Your task to perform on an android device: change text size in settings app Image 0: 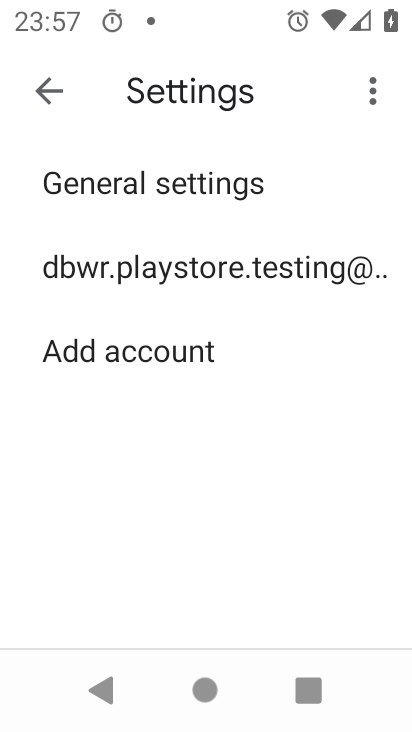
Step 0: press home button
Your task to perform on an android device: change text size in settings app Image 1: 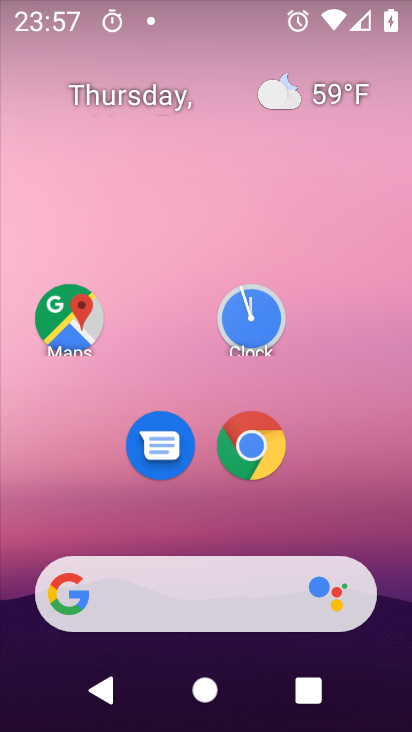
Step 1: drag from (171, 536) to (173, 65)
Your task to perform on an android device: change text size in settings app Image 2: 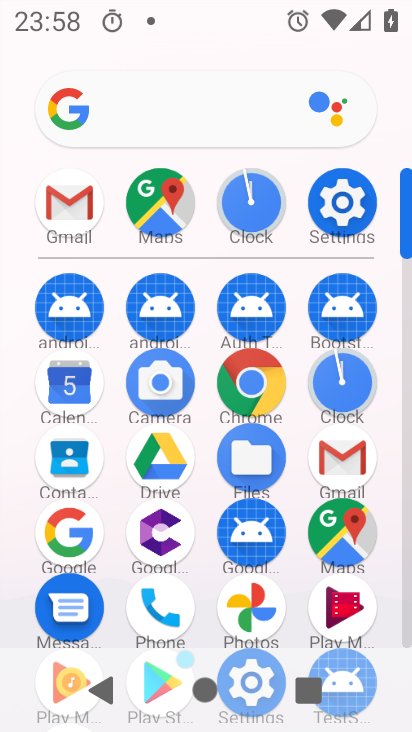
Step 2: click (353, 209)
Your task to perform on an android device: change text size in settings app Image 3: 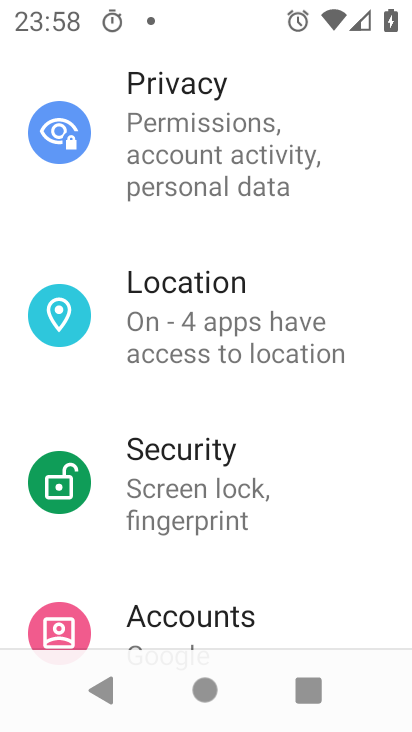
Step 3: drag from (206, 142) to (234, 564)
Your task to perform on an android device: change text size in settings app Image 4: 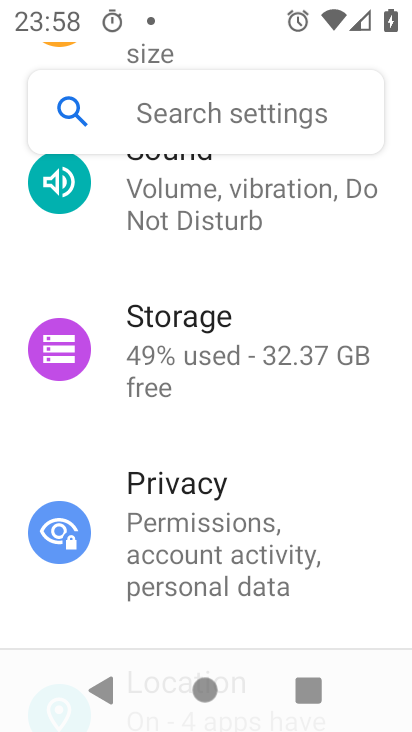
Step 4: drag from (166, 209) to (233, 580)
Your task to perform on an android device: change text size in settings app Image 5: 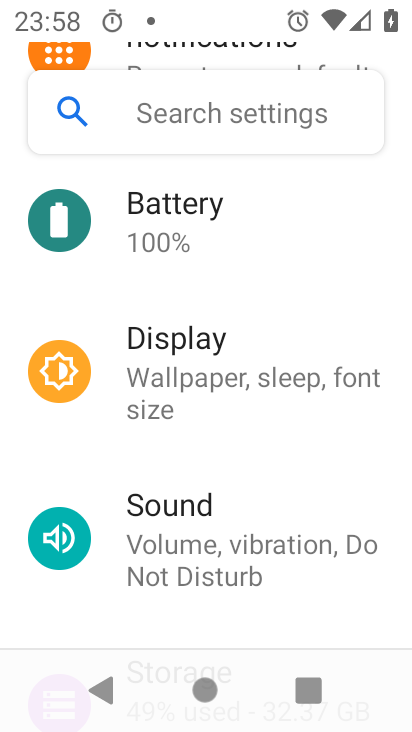
Step 5: click (181, 379)
Your task to perform on an android device: change text size in settings app Image 6: 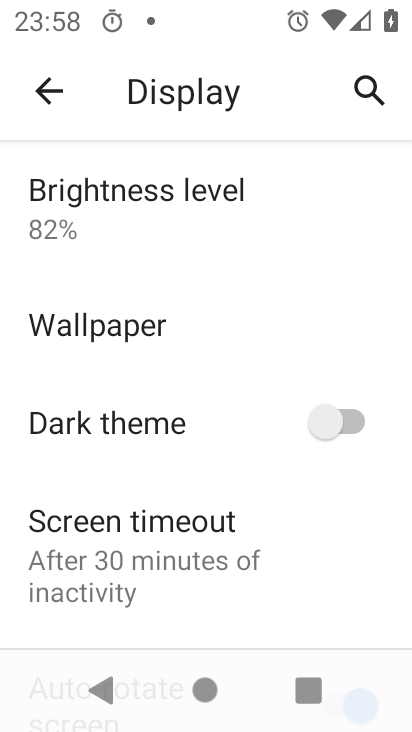
Step 6: drag from (222, 557) to (224, 34)
Your task to perform on an android device: change text size in settings app Image 7: 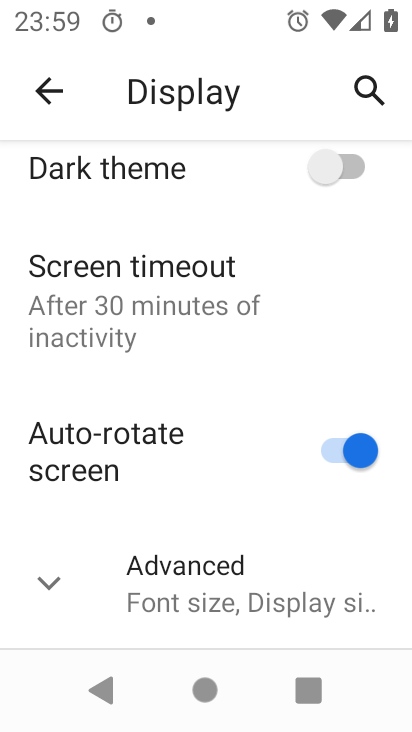
Step 7: drag from (211, 470) to (112, 22)
Your task to perform on an android device: change text size in settings app Image 8: 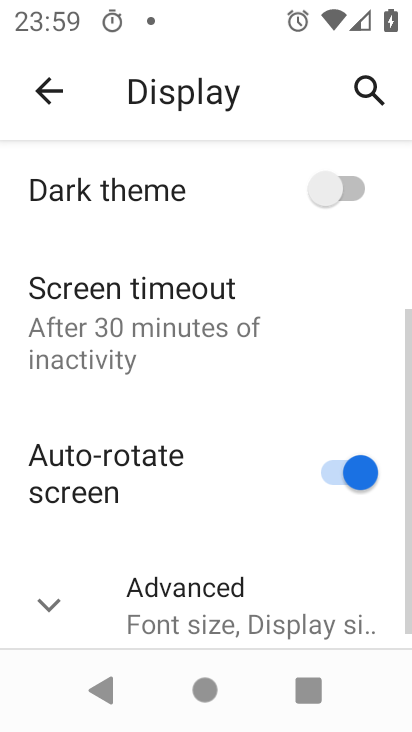
Step 8: click (205, 562)
Your task to perform on an android device: change text size in settings app Image 9: 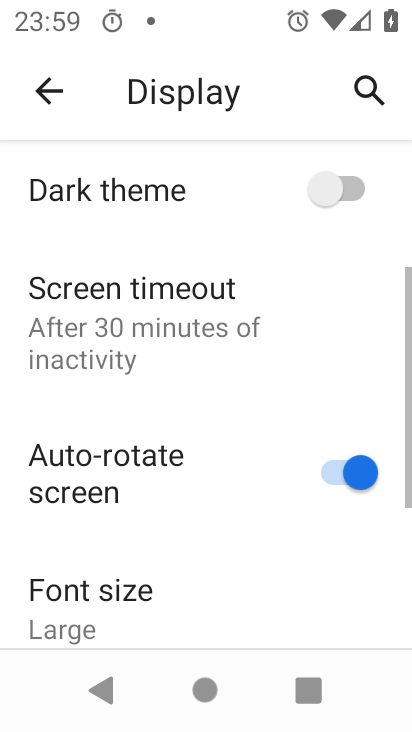
Step 9: drag from (229, 538) to (215, 64)
Your task to perform on an android device: change text size in settings app Image 10: 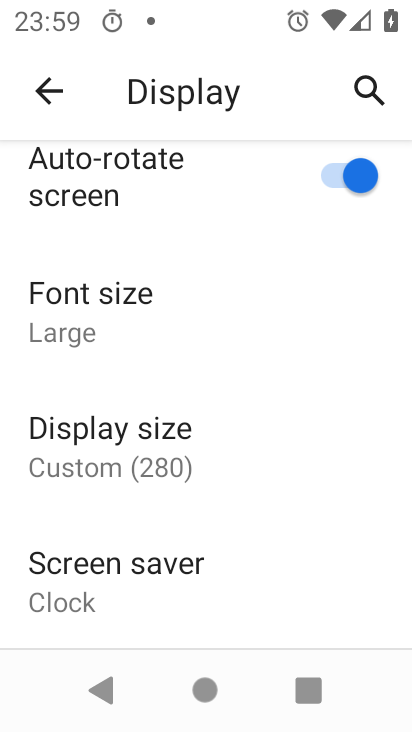
Step 10: click (92, 281)
Your task to perform on an android device: change text size in settings app Image 11: 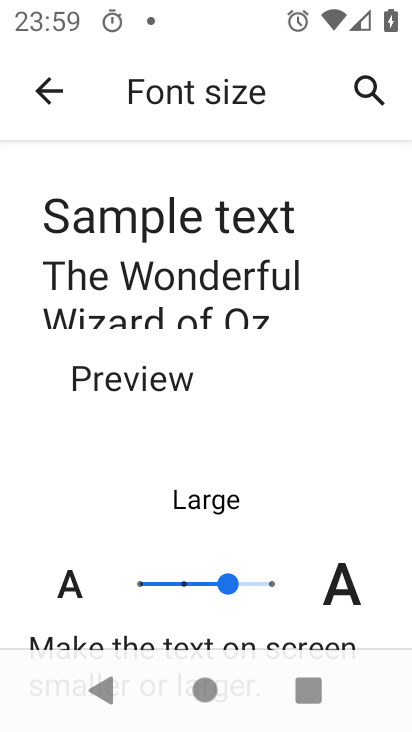
Step 11: click (178, 592)
Your task to perform on an android device: change text size in settings app Image 12: 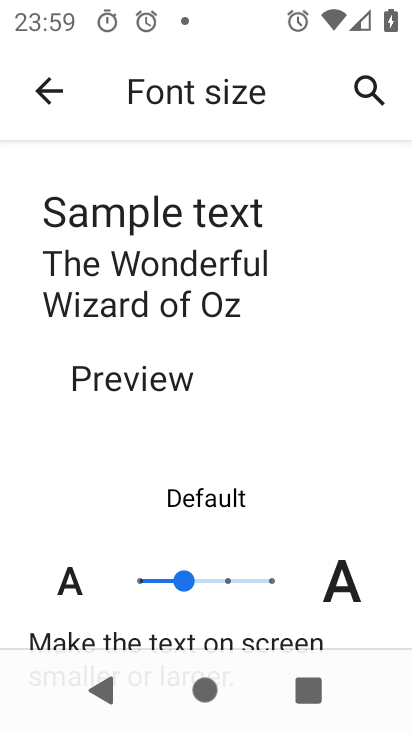
Step 12: task complete